Your task to perform on an android device: clear all cookies in the chrome app Image 0: 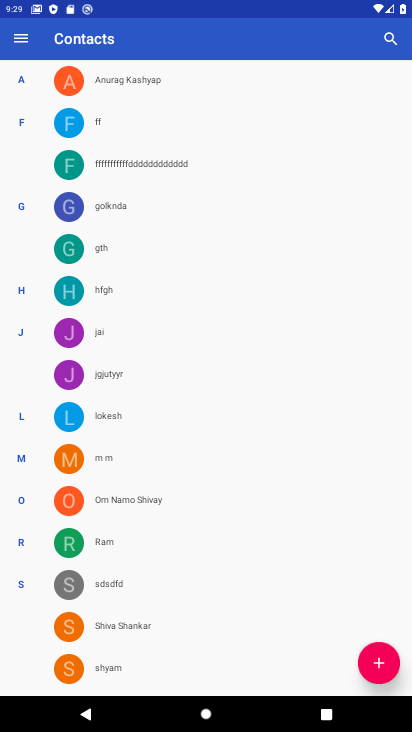
Step 0: press home button
Your task to perform on an android device: clear all cookies in the chrome app Image 1: 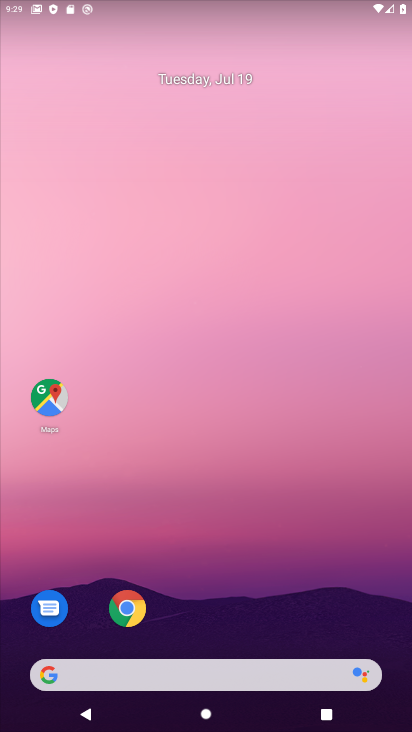
Step 1: click (129, 607)
Your task to perform on an android device: clear all cookies in the chrome app Image 2: 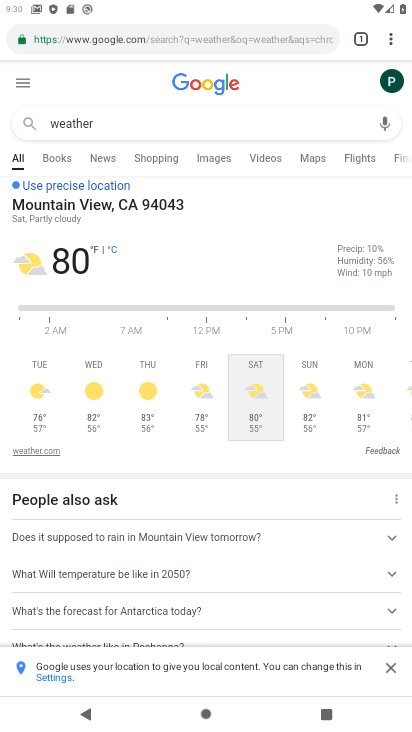
Step 2: drag from (395, 35) to (237, 225)
Your task to perform on an android device: clear all cookies in the chrome app Image 3: 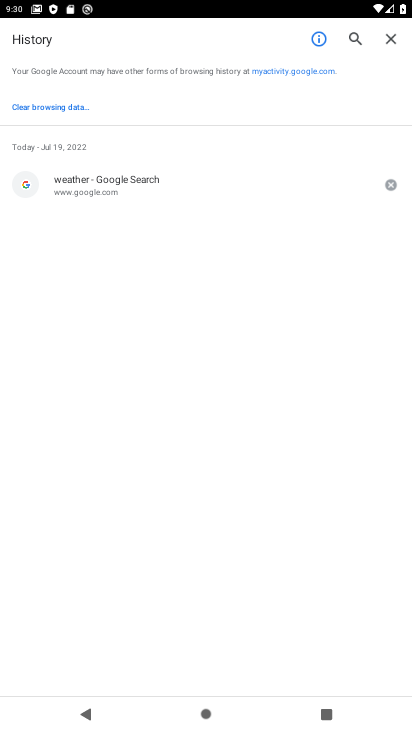
Step 3: click (80, 107)
Your task to perform on an android device: clear all cookies in the chrome app Image 4: 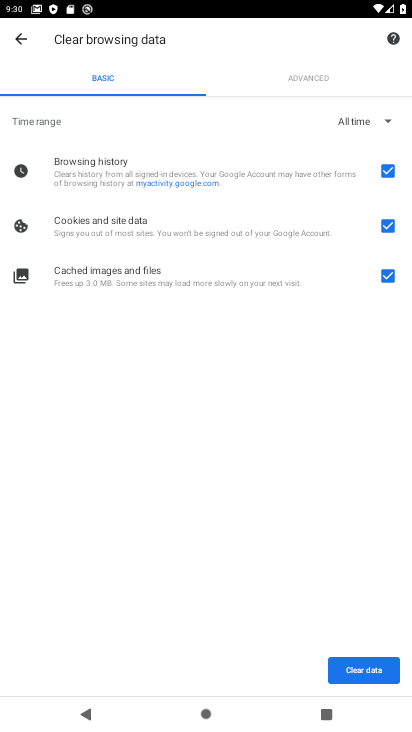
Step 4: click (372, 676)
Your task to perform on an android device: clear all cookies in the chrome app Image 5: 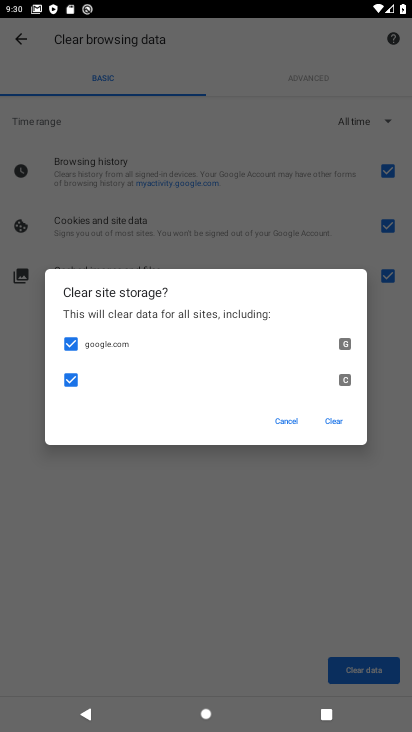
Step 5: click (339, 421)
Your task to perform on an android device: clear all cookies in the chrome app Image 6: 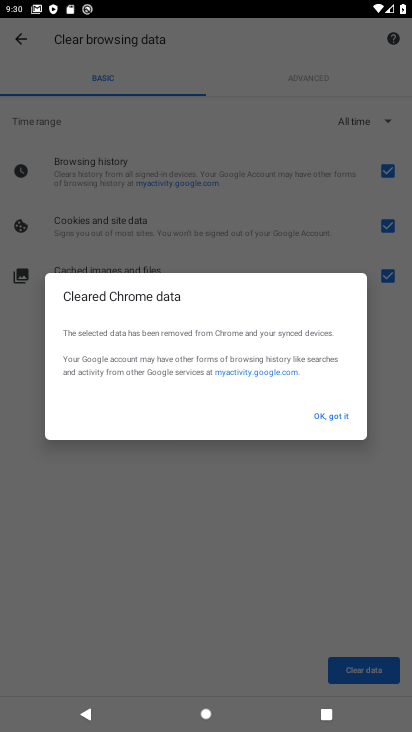
Step 6: task complete